Your task to perform on an android device: Set an alarm for 10am Image 0: 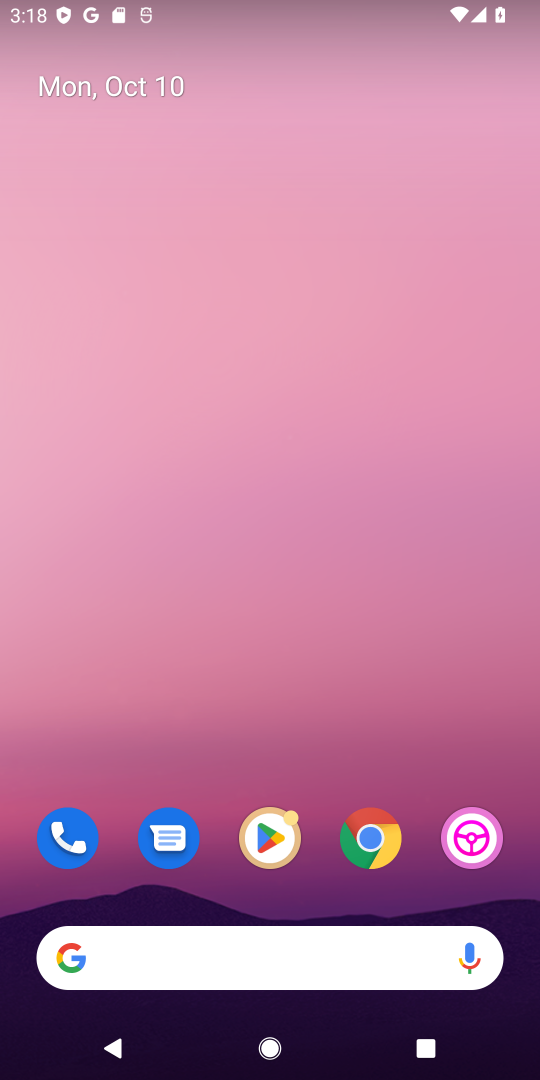
Step 0: drag from (236, 863) to (293, 433)
Your task to perform on an android device: Set an alarm for 10am Image 1: 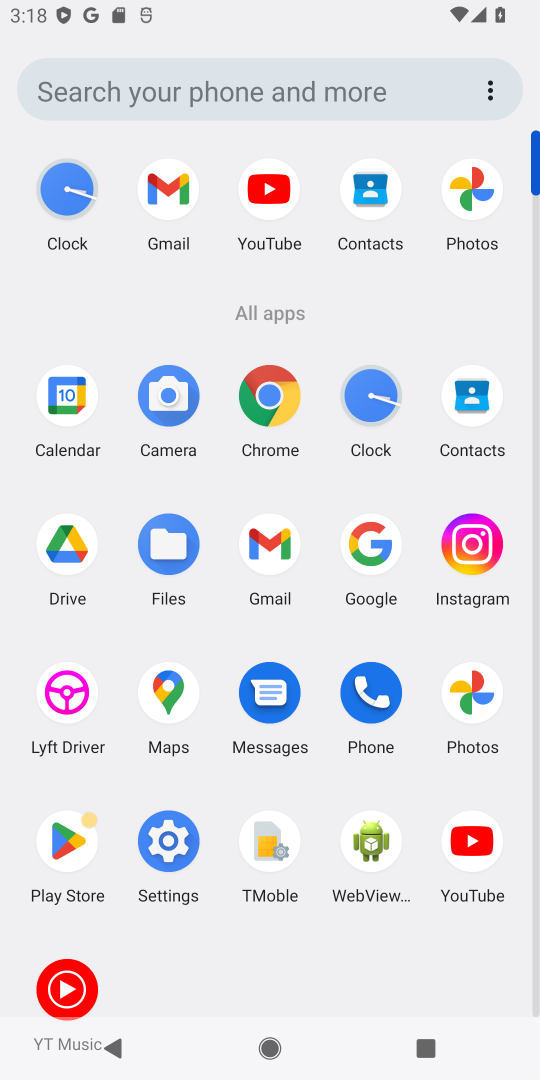
Step 1: click (364, 417)
Your task to perform on an android device: Set an alarm for 10am Image 2: 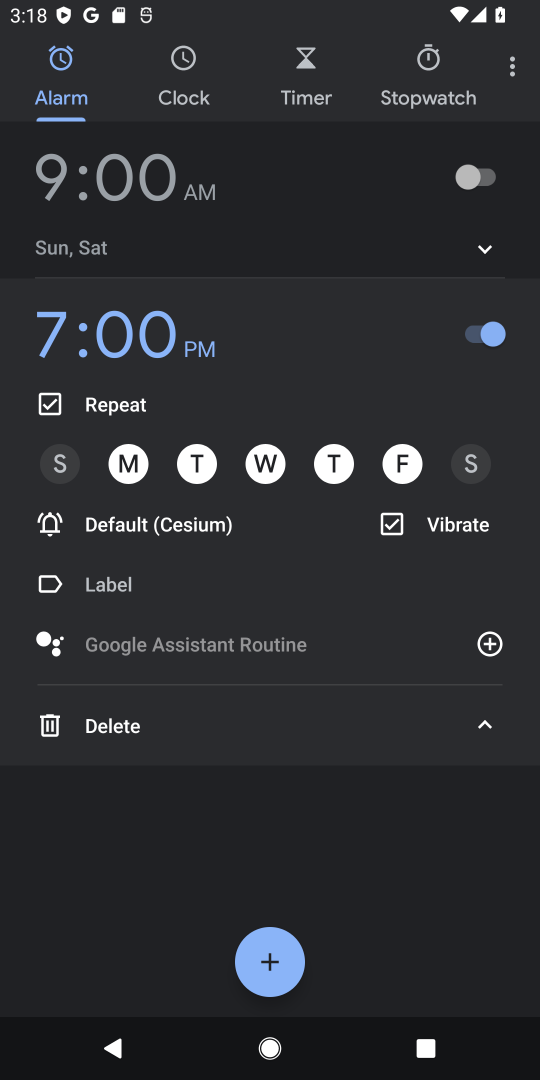
Step 2: click (479, 191)
Your task to perform on an android device: Set an alarm for 10am Image 3: 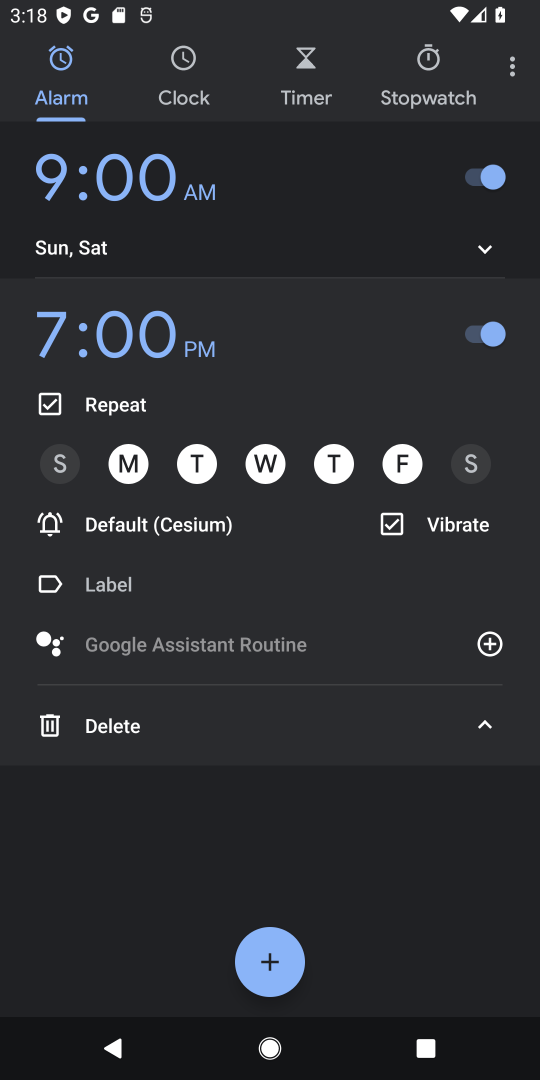
Step 3: task complete